Your task to perform on an android device: remove spam from my inbox in the gmail app Image 0: 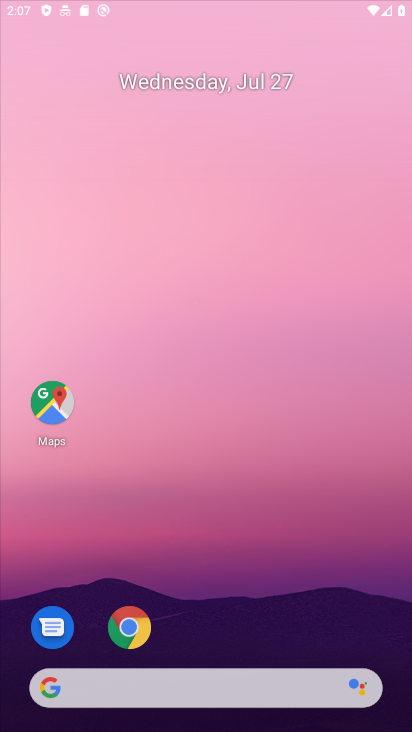
Step 0: drag from (246, 589) to (191, 259)
Your task to perform on an android device: remove spam from my inbox in the gmail app Image 1: 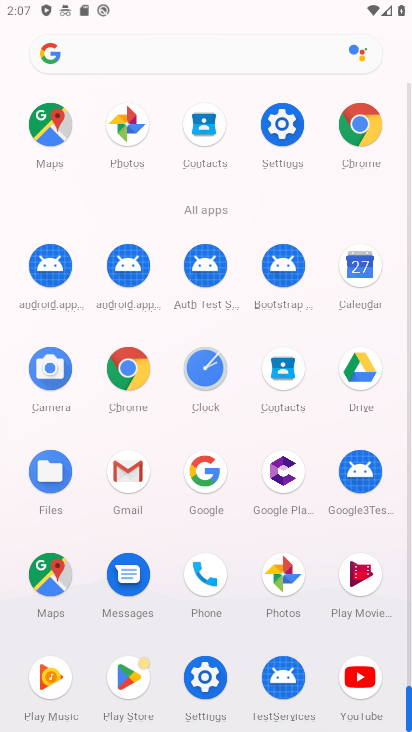
Step 1: click (129, 478)
Your task to perform on an android device: remove spam from my inbox in the gmail app Image 2: 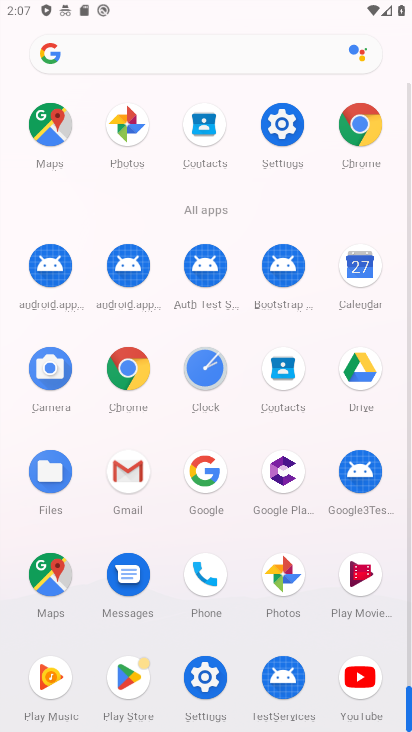
Step 2: click (132, 477)
Your task to perform on an android device: remove spam from my inbox in the gmail app Image 3: 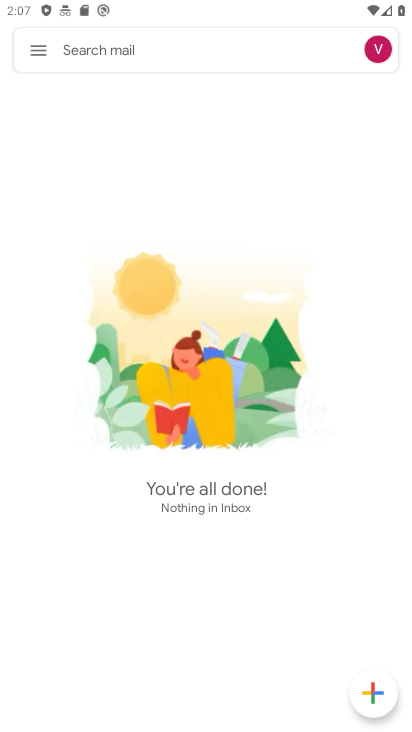
Step 3: click (32, 45)
Your task to perform on an android device: remove spam from my inbox in the gmail app Image 4: 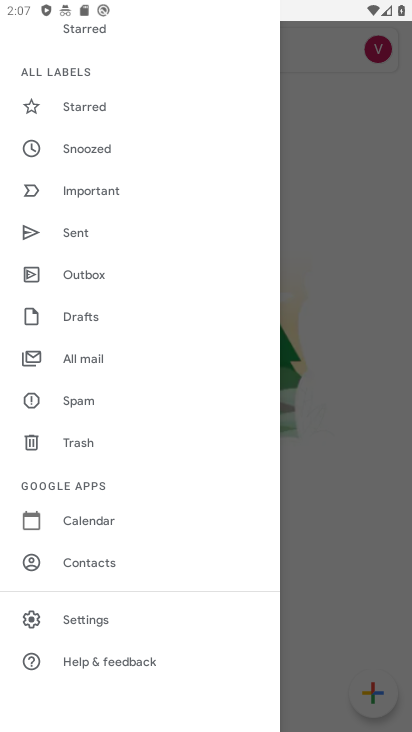
Step 4: click (87, 352)
Your task to perform on an android device: remove spam from my inbox in the gmail app Image 5: 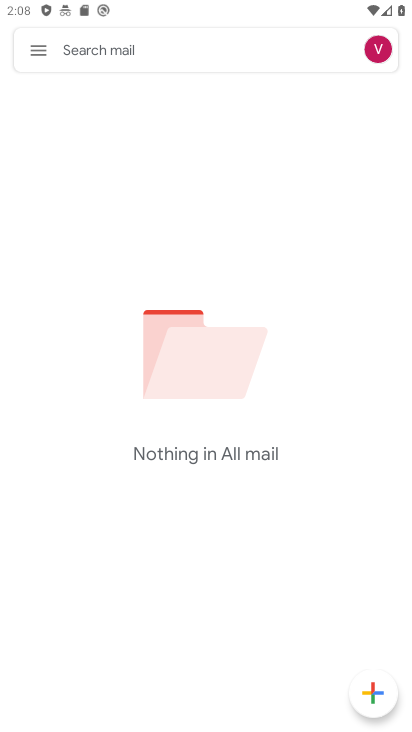
Step 5: click (32, 49)
Your task to perform on an android device: remove spam from my inbox in the gmail app Image 6: 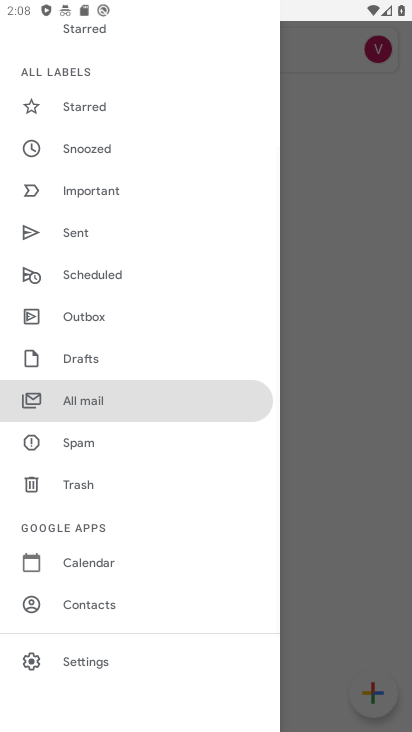
Step 6: click (72, 439)
Your task to perform on an android device: remove spam from my inbox in the gmail app Image 7: 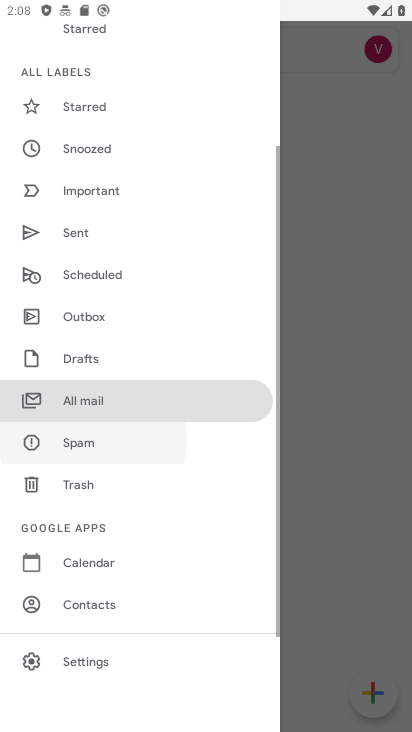
Step 7: click (69, 440)
Your task to perform on an android device: remove spam from my inbox in the gmail app Image 8: 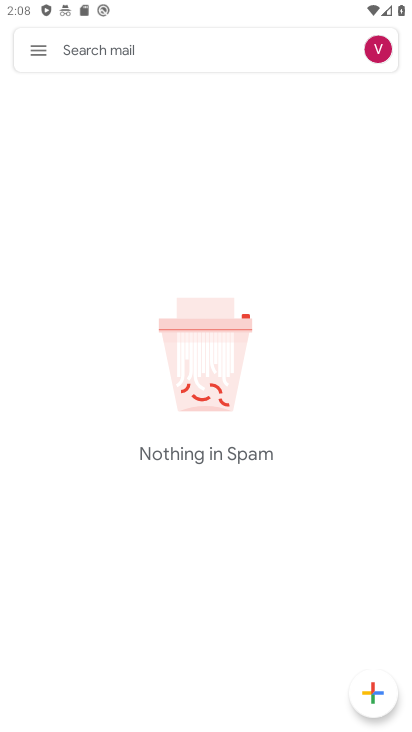
Step 8: task complete